Your task to perform on an android device: open a bookmark in the chrome app Image 0: 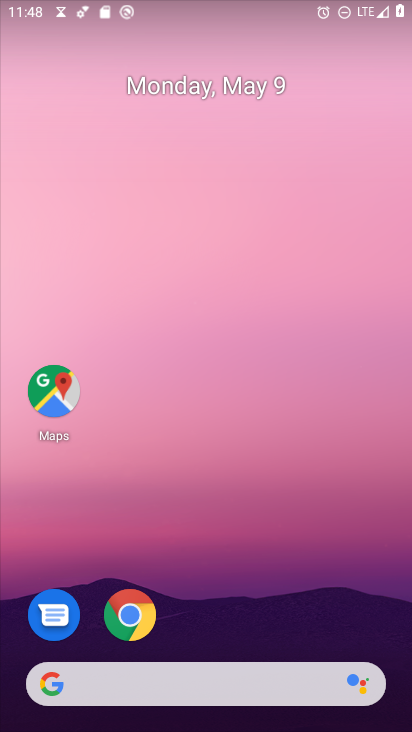
Step 0: click (128, 615)
Your task to perform on an android device: open a bookmark in the chrome app Image 1: 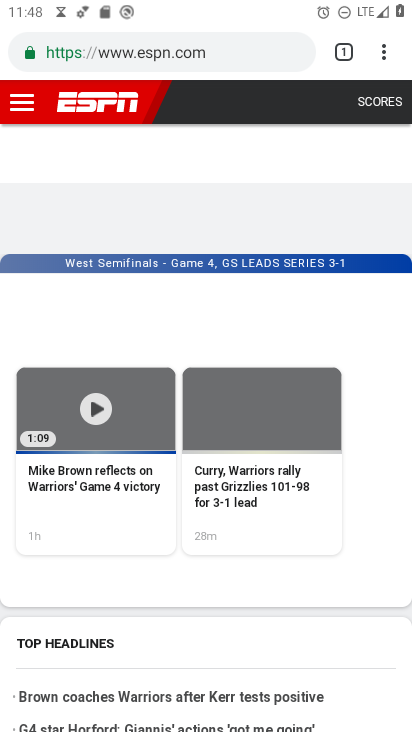
Step 1: click (385, 53)
Your task to perform on an android device: open a bookmark in the chrome app Image 2: 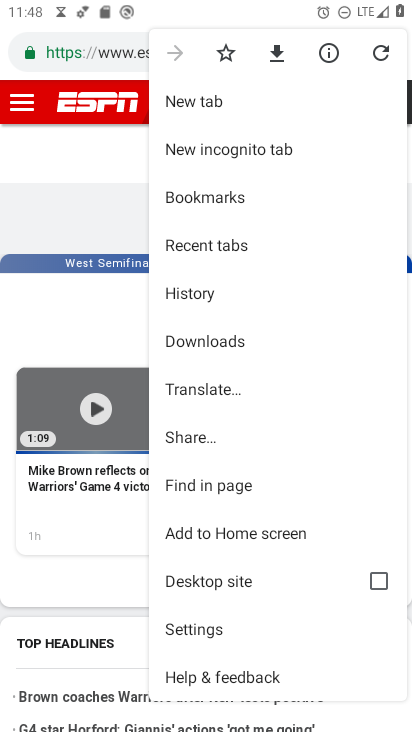
Step 2: click (217, 196)
Your task to perform on an android device: open a bookmark in the chrome app Image 3: 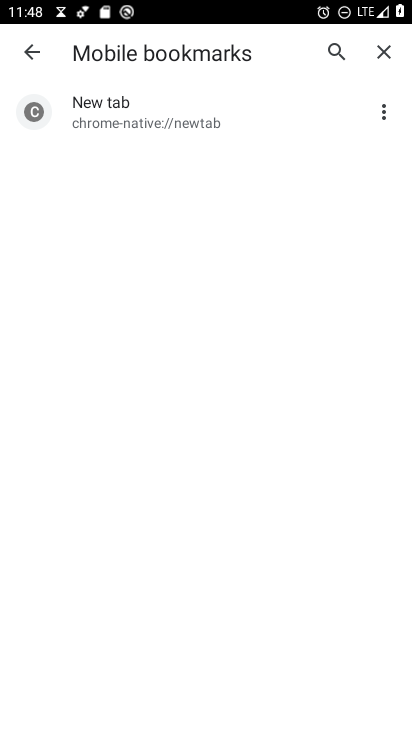
Step 3: click (151, 117)
Your task to perform on an android device: open a bookmark in the chrome app Image 4: 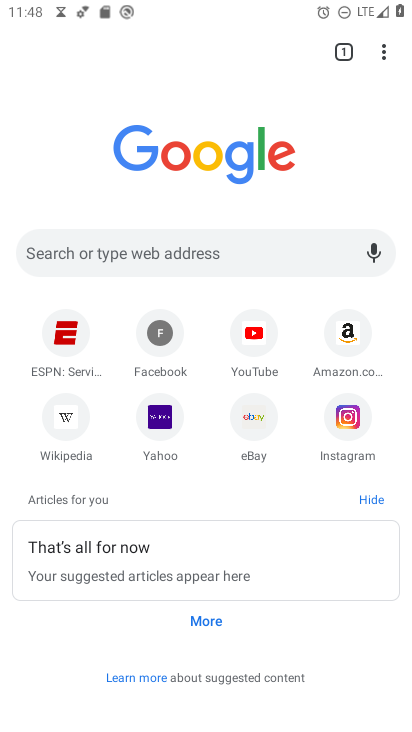
Step 4: task complete